Your task to perform on an android device: turn off picture-in-picture Image 0: 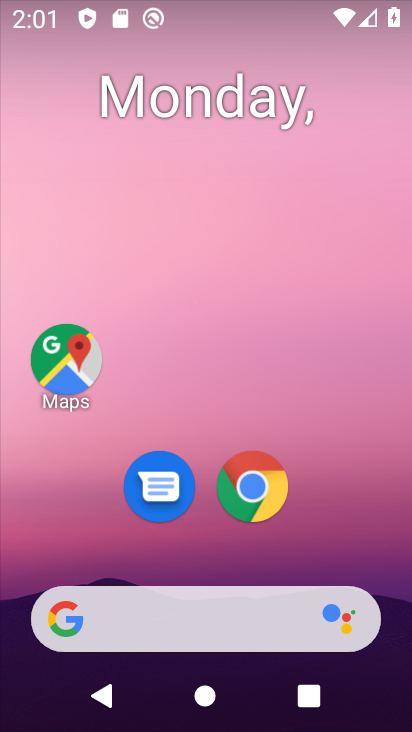
Step 0: click (246, 504)
Your task to perform on an android device: turn off picture-in-picture Image 1: 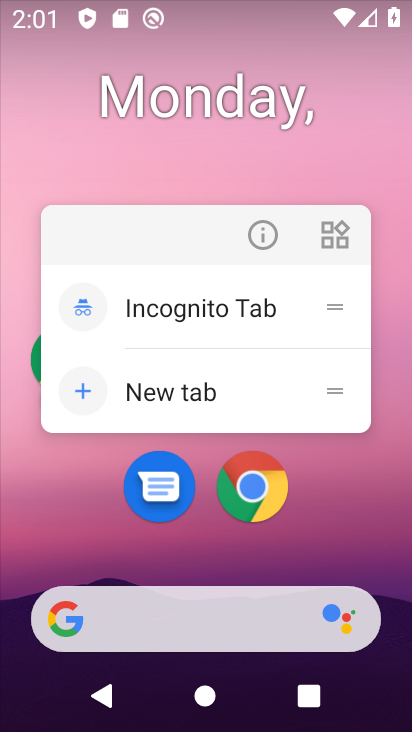
Step 1: click (272, 241)
Your task to perform on an android device: turn off picture-in-picture Image 2: 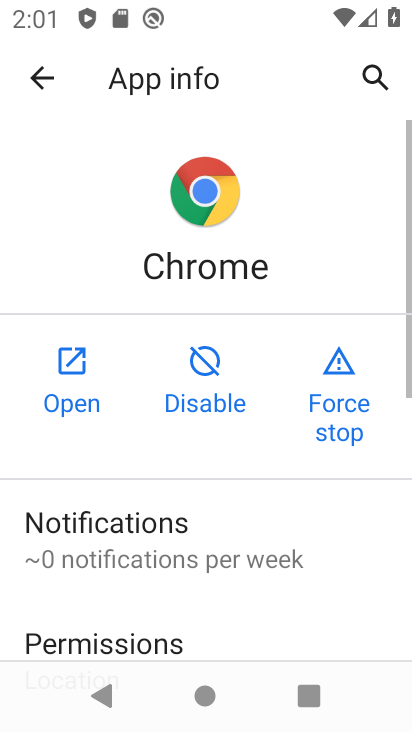
Step 2: drag from (163, 527) to (188, 270)
Your task to perform on an android device: turn off picture-in-picture Image 3: 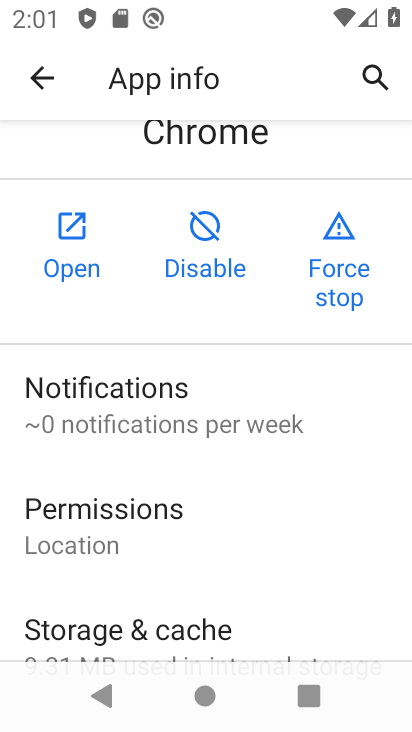
Step 3: drag from (143, 536) to (287, 102)
Your task to perform on an android device: turn off picture-in-picture Image 4: 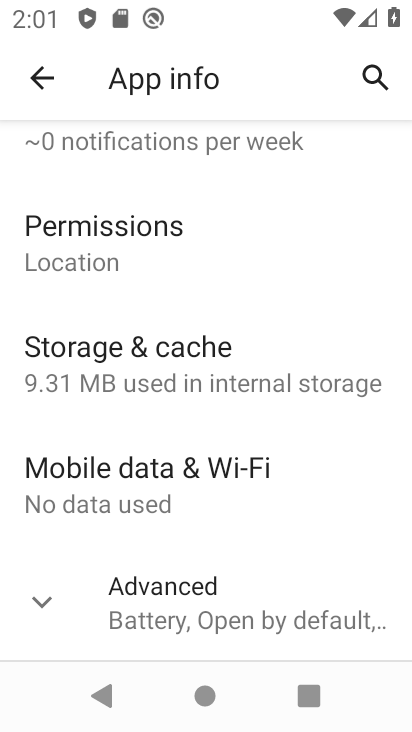
Step 4: drag from (143, 516) to (217, 153)
Your task to perform on an android device: turn off picture-in-picture Image 5: 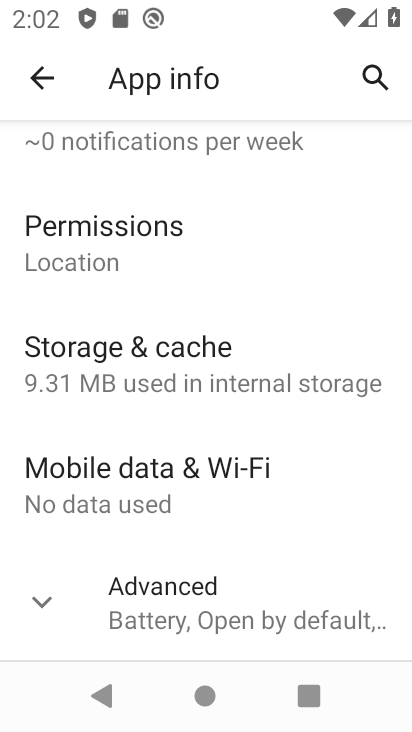
Step 5: drag from (340, 503) to (401, 269)
Your task to perform on an android device: turn off picture-in-picture Image 6: 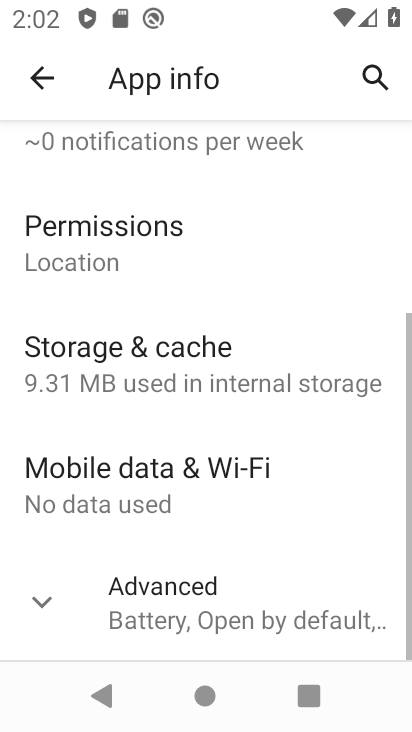
Step 6: click (166, 599)
Your task to perform on an android device: turn off picture-in-picture Image 7: 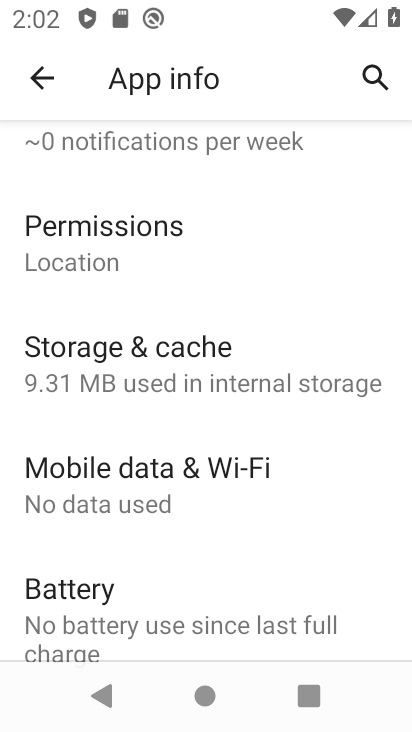
Step 7: drag from (241, 606) to (383, 159)
Your task to perform on an android device: turn off picture-in-picture Image 8: 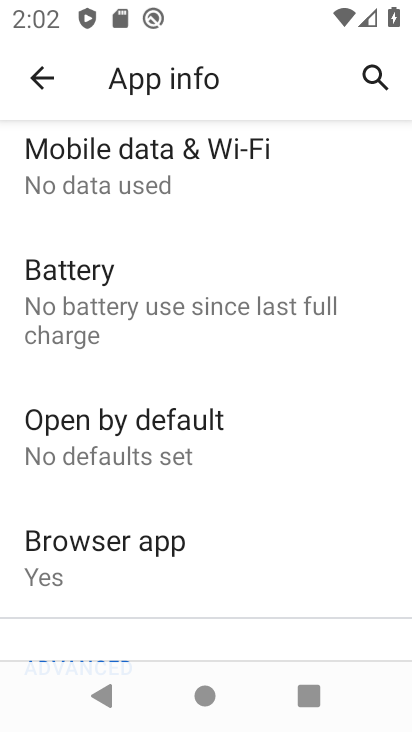
Step 8: drag from (324, 608) to (410, 206)
Your task to perform on an android device: turn off picture-in-picture Image 9: 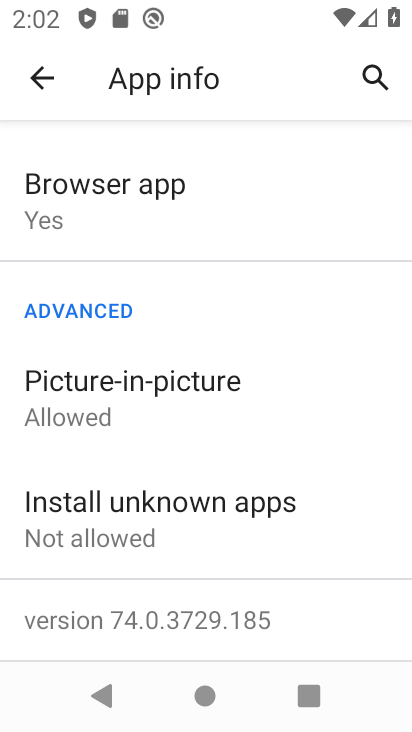
Step 9: click (152, 394)
Your task to perform on an android device: turn off picture-in-picture Image 10: 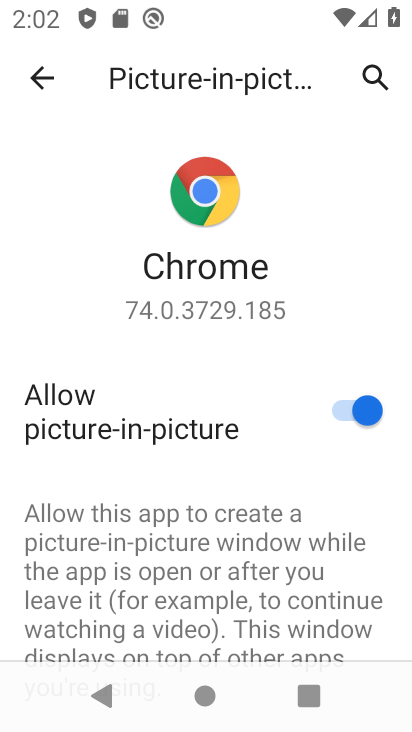
Step 10: click (337, 417)
Your task to perform on an android device: turn off picture-in-picture Image 11: 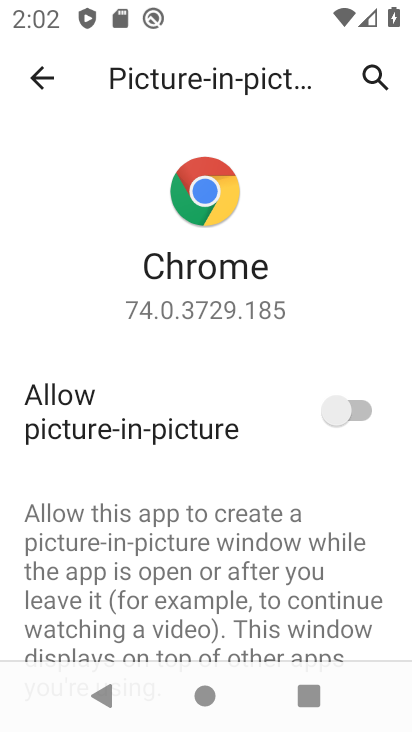
Step 11: task complete